Your task to perform on an android device: change the clock display to analog Image 0: 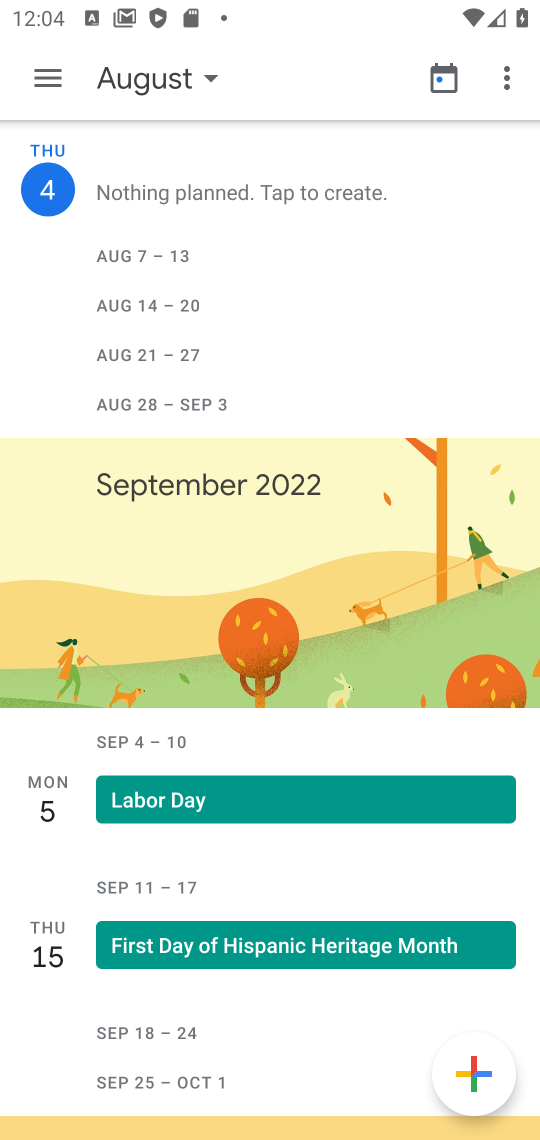
Step 0: press home button
Your task to perform on an android device: change the clock display to analog Image 1: 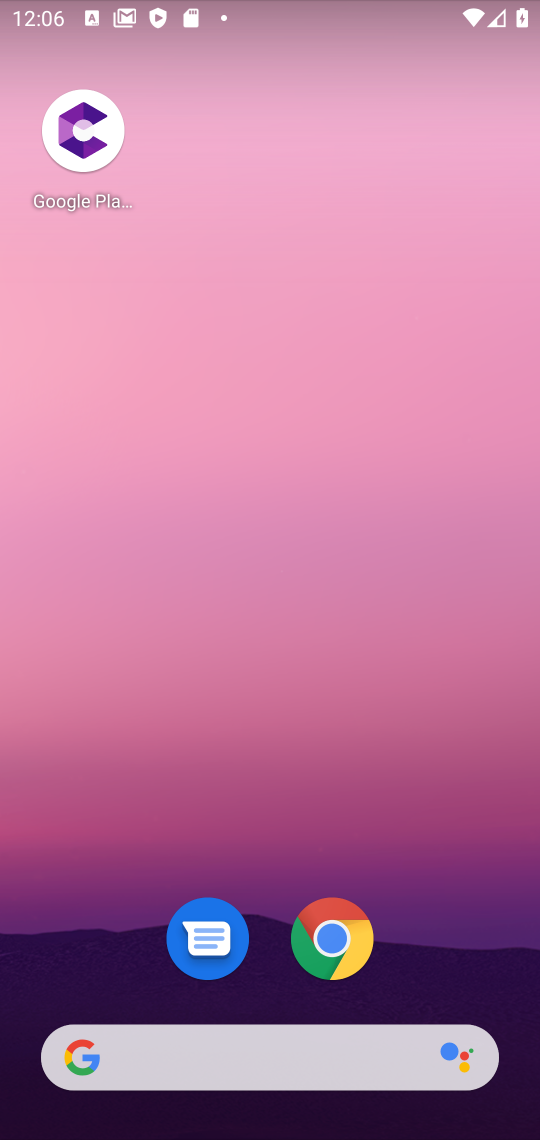
Step 1: drag from (300, 999) to (336, 125)
Your task to perform on an android device: change the clock display to analog Image 2: 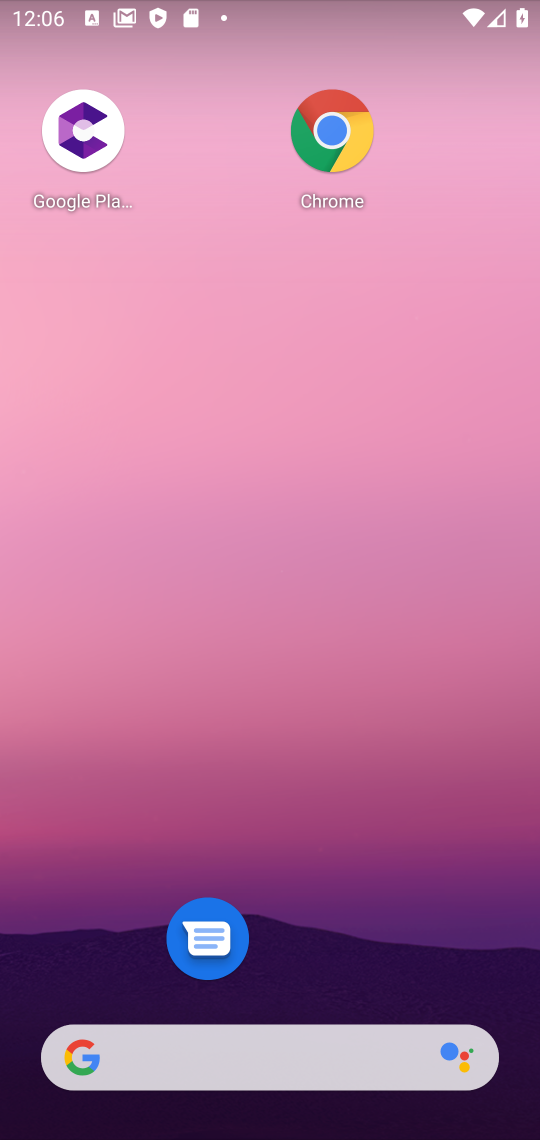
Step 2: drag from (269, 1122) to (385, 29)
Your task to perform on an android device: change the clock display to analog Image 3: 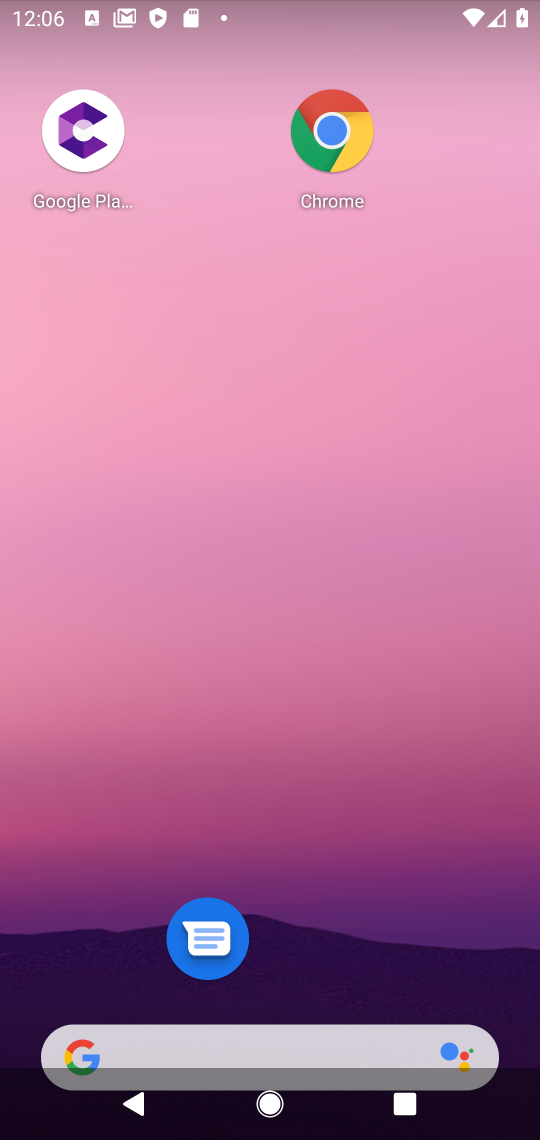
Step 3: drag from (352, 1119) to (312, 1)
Your task to perform on an android device: change the clock display to analog Image 4: 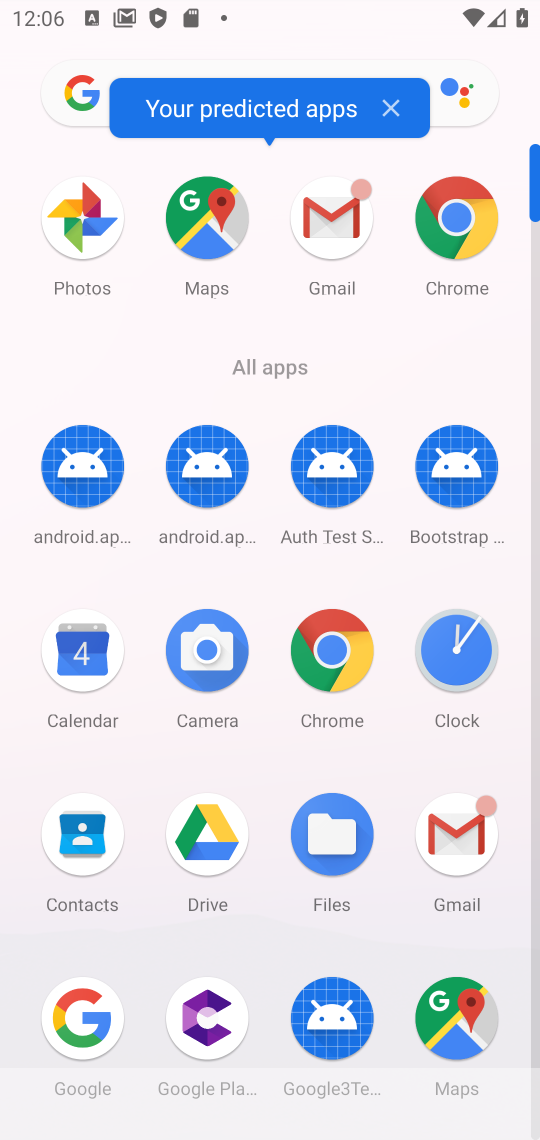
Step 4: click (454, 621)
Your task to perform on an android device: change the clock display to analog Image 5: 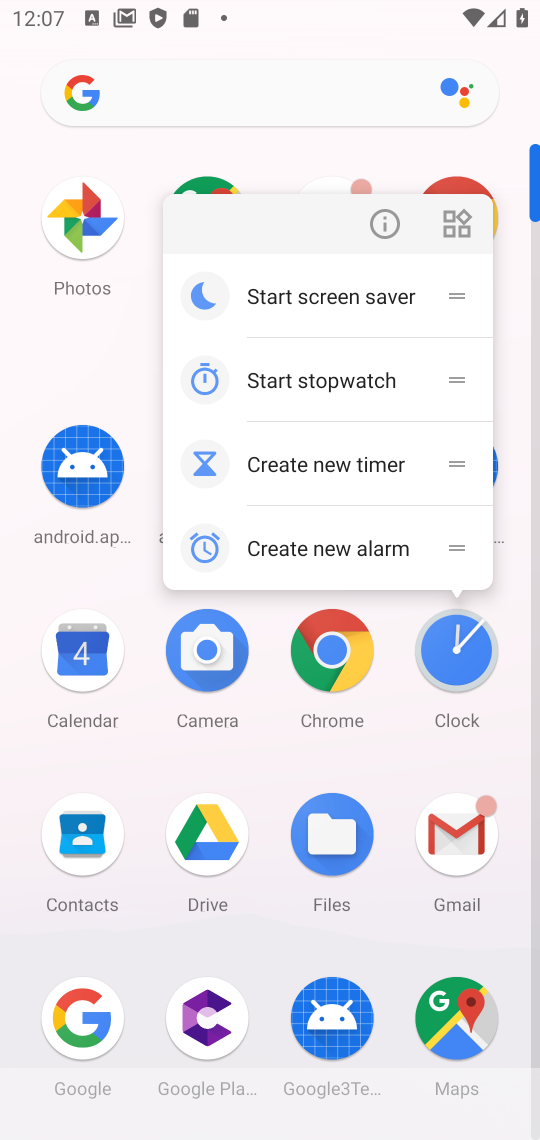
Step 5: click (476, 641)
Your task to perform on an android device: change the clock display to analog Image 6: 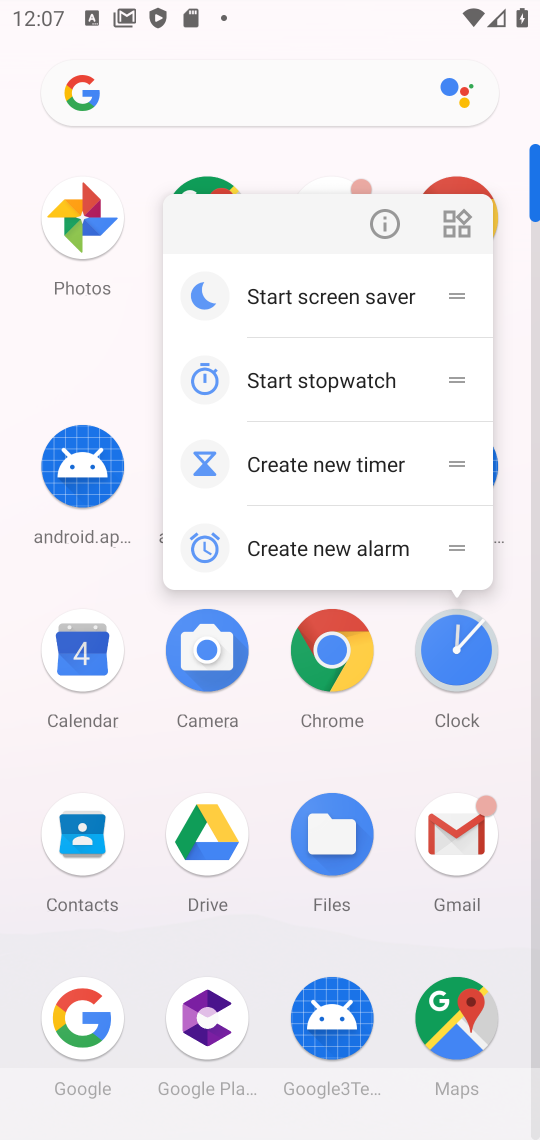
Step 6: click (490, 648)
Your task to perform on an android device: change the clock display to analog Image 7: 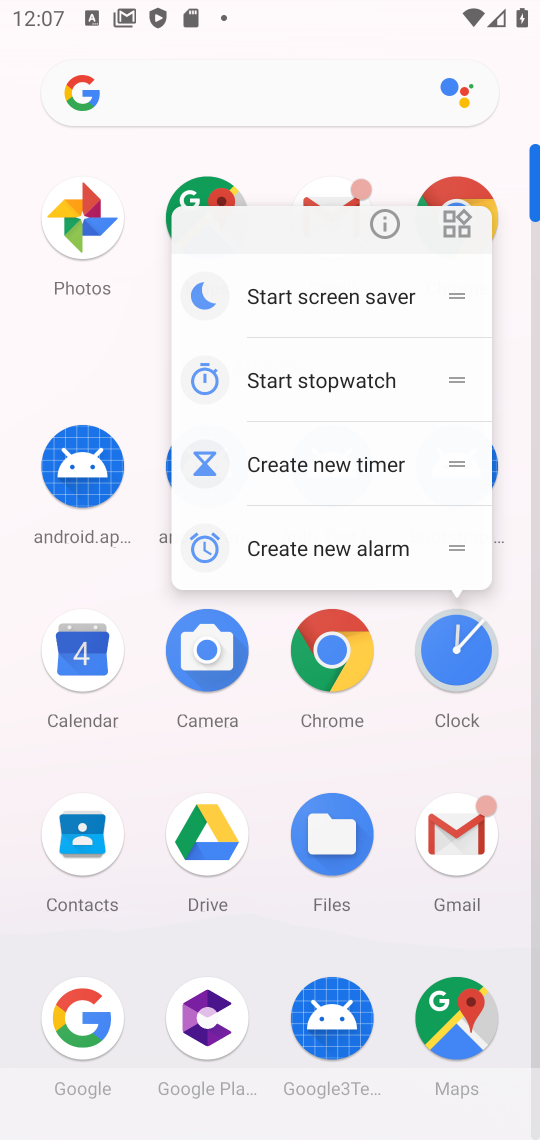
Step 7: click (490, 648)
Your task to perform on an android device: change the clock display to analog Image 8: 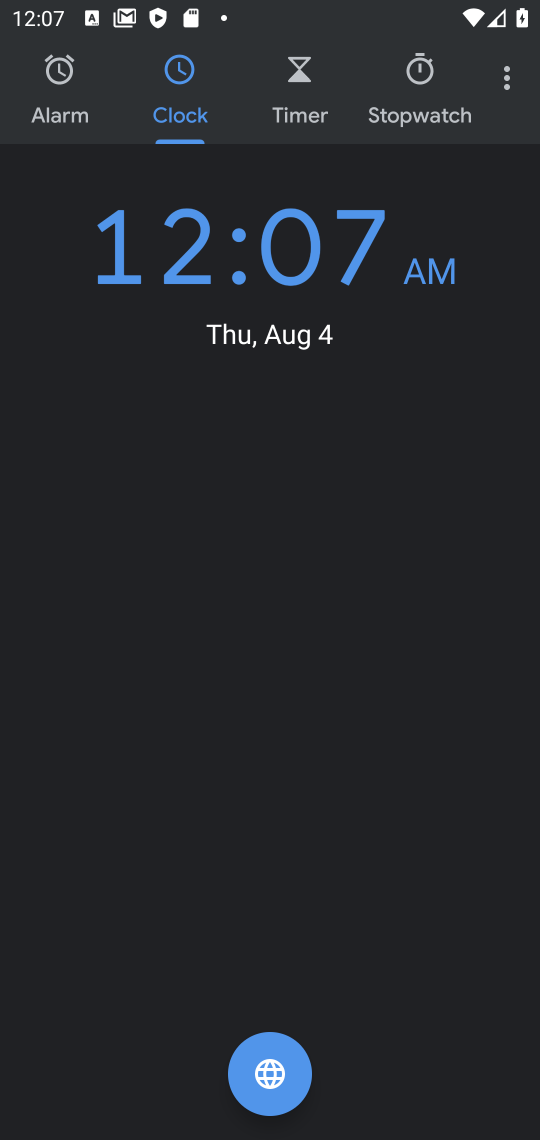
Step 8: click (516, 76)
Your task to perform on an android device: change the clock display to analog Image 9: 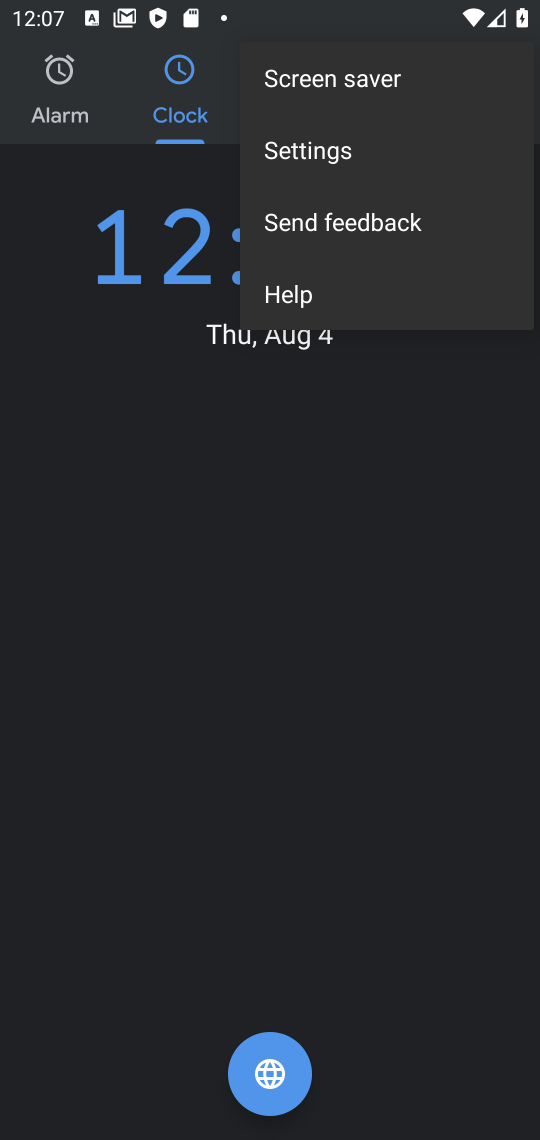
Step 9: click (389, 156)
Your task to perform on an android device: change the clock display to analog Image 10: 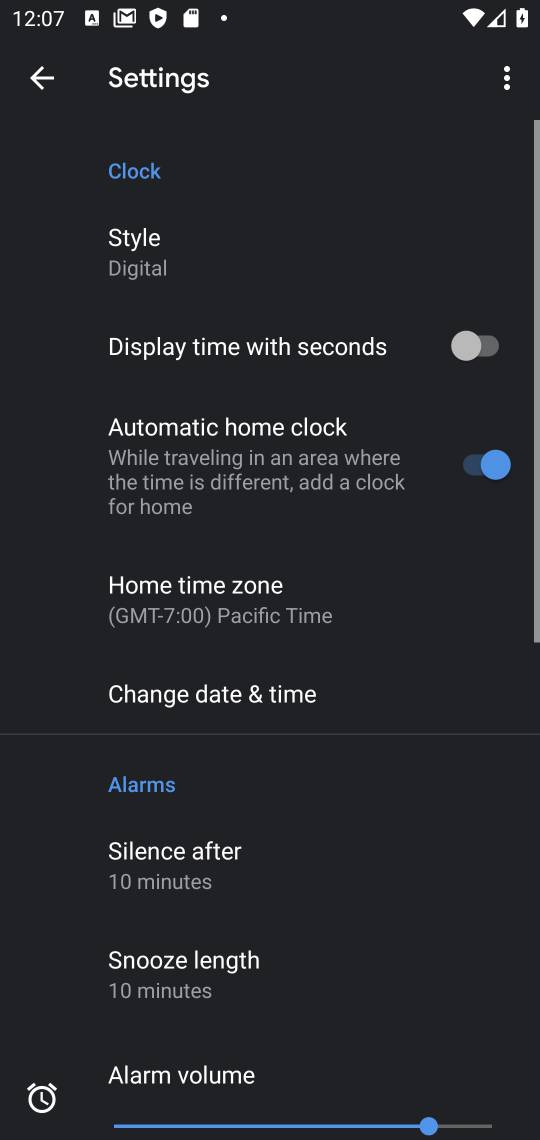
Step 10: click (197, 257)
Your task to perform on an android device: change the clock display to analog Image 11: 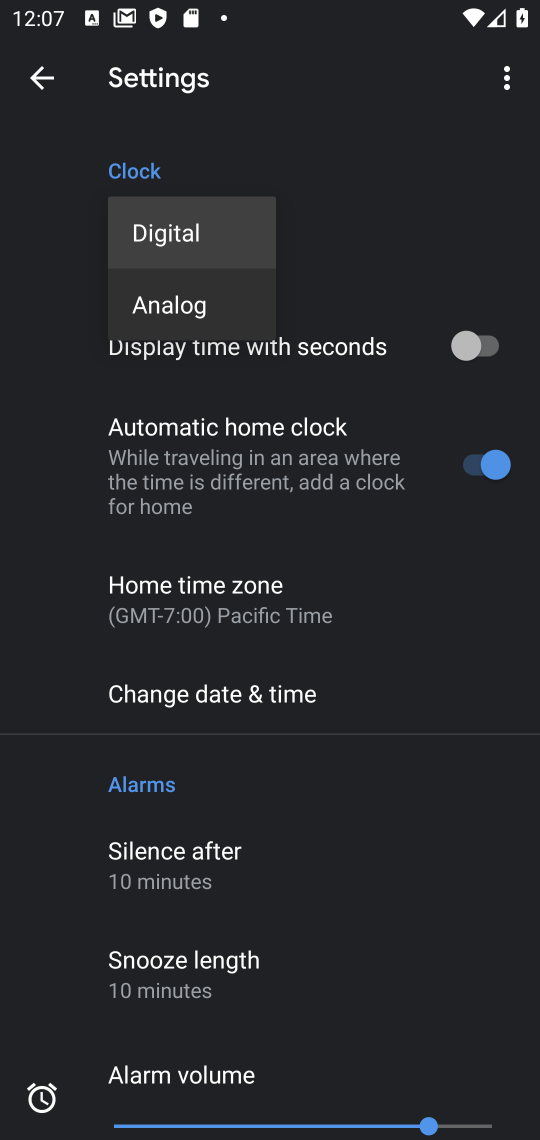
Step 11: click (210, 316)
Your task to perform on an android device: change the clock display to analog Image 12: 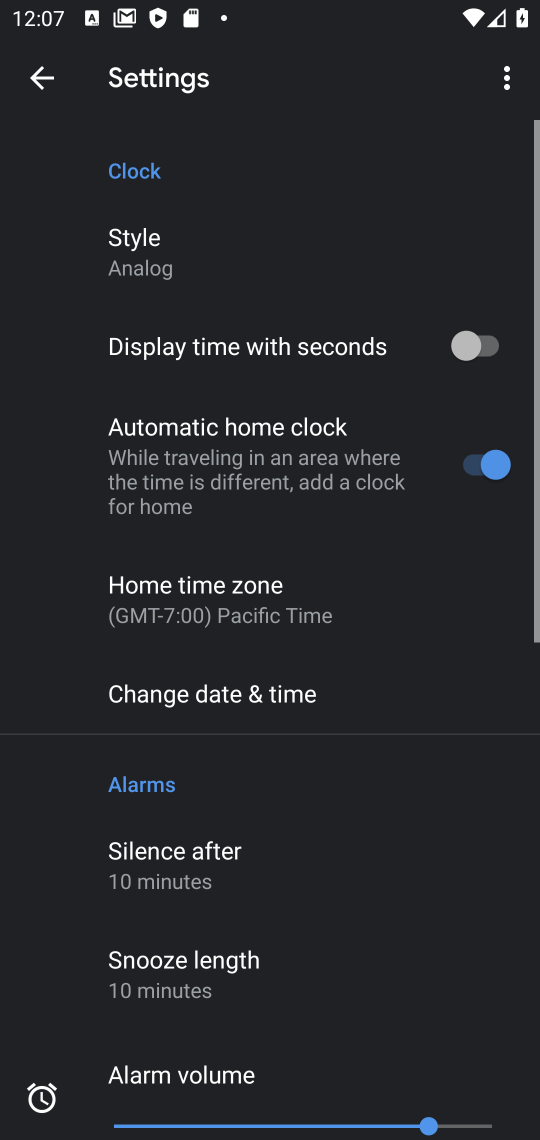
Step 12: task complete